Your task to perform on an android device: turn on sleep mode Image 0: 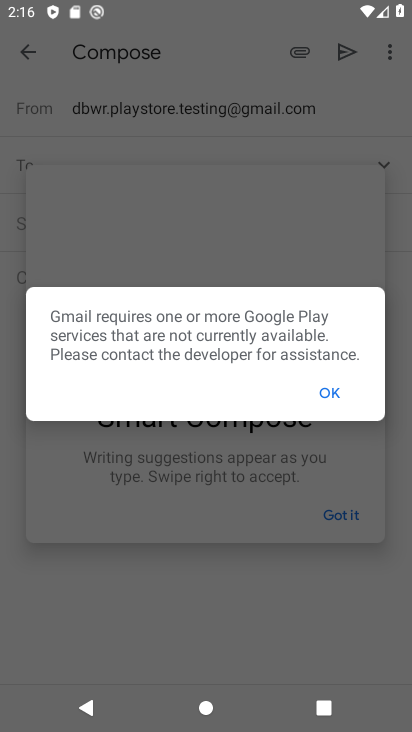
Step 0: press home button
Your task to perform on an android device: turn on sleep mode Image 1: 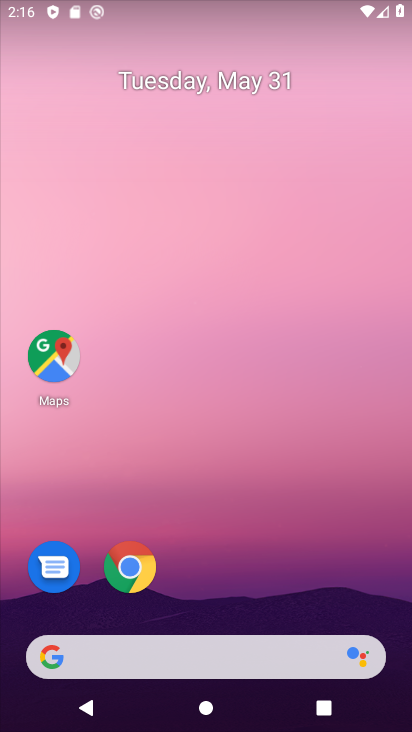
Step 1: drag from (252, 581) to (159, 9)
Your task to perform on an android device: turn on sleep mode Image 2: 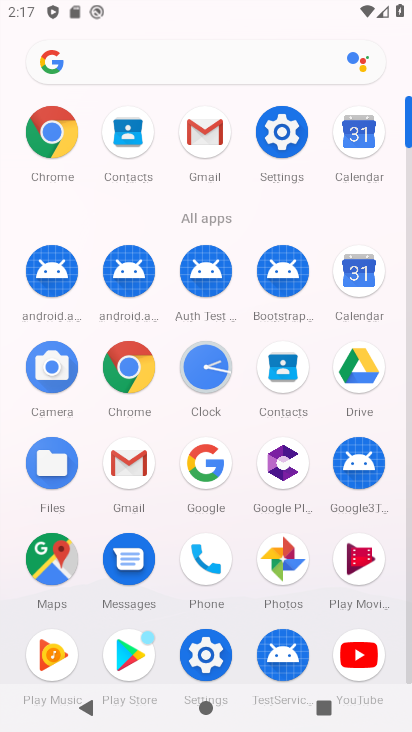
Step 2: click (289, 146)
Your task to perform on an android device: turn on sleep mode Image 3: 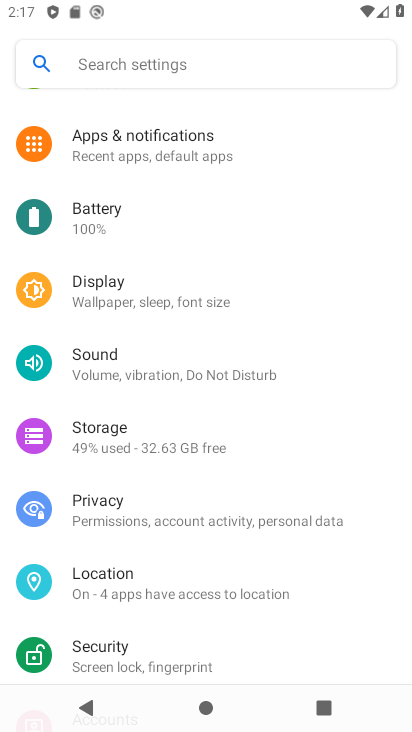
Step 3: click (209, 305)
Your task to perform on an android device: turn on sleep mode Image 4: 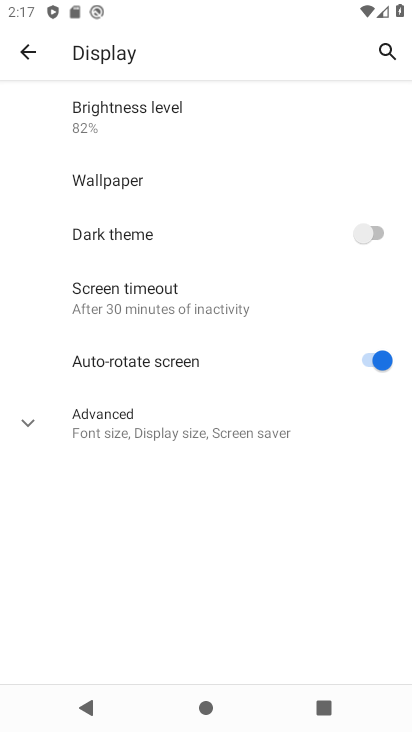
Step 4: click (229, 423)
Your task to perform on an android device: turn on sleep mode Image 5: 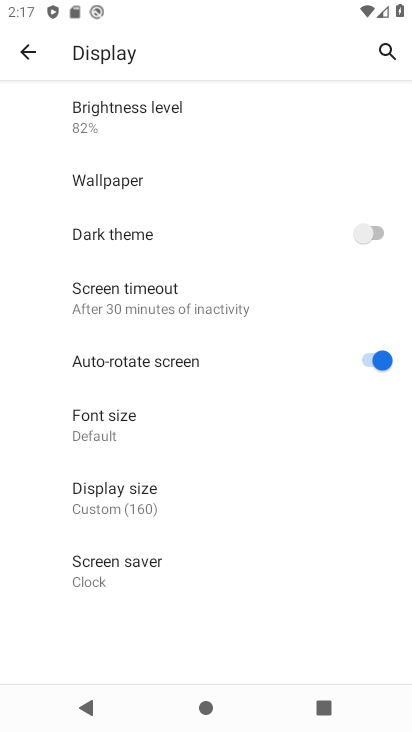
Step 5: task complete